Your task to perform on an android device: change the clock display to show seconds Image 0: 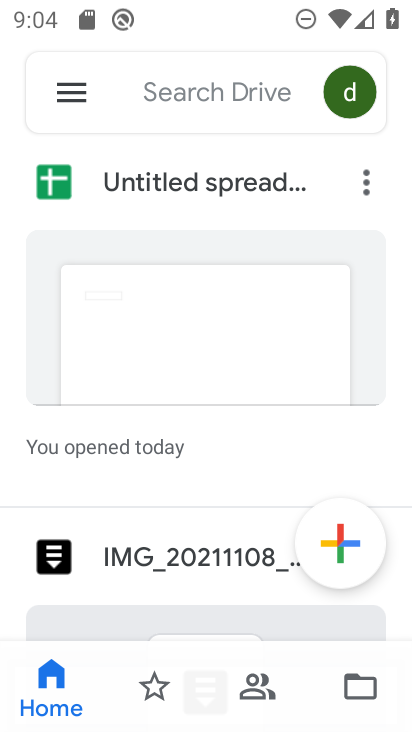
Step 0: press home button
Your task to perform on an android device: change the clock display to show seconds Image 1: 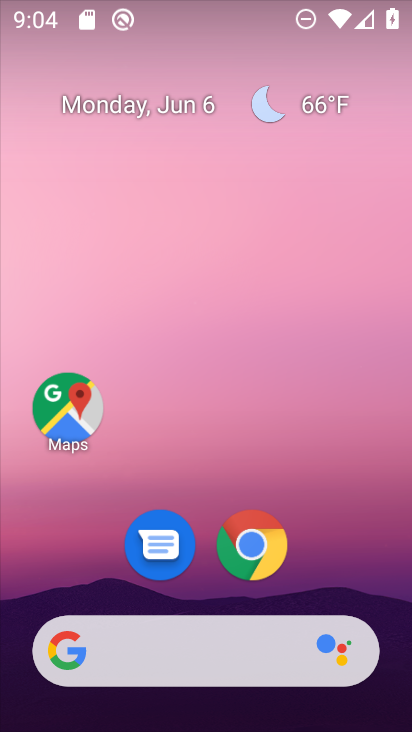
Step 1: drag from (209, 574) to (268, 137)
Your task to perform on an android device: change the clock display to show seconds Image 2: 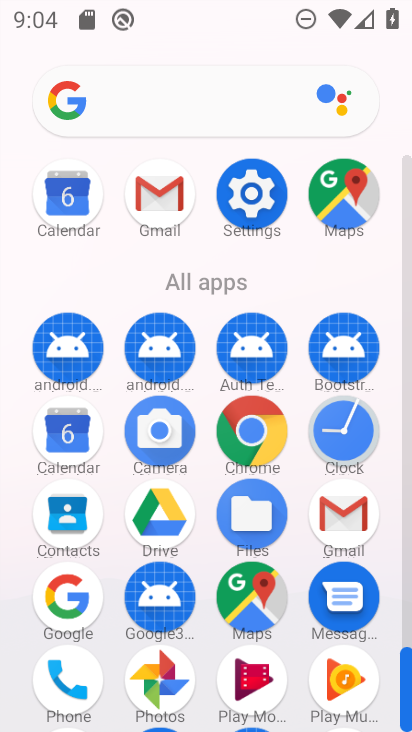
Step 2: click (343, 437)
Your task to perform on an android device: change the clock display to show seconds Image 3: 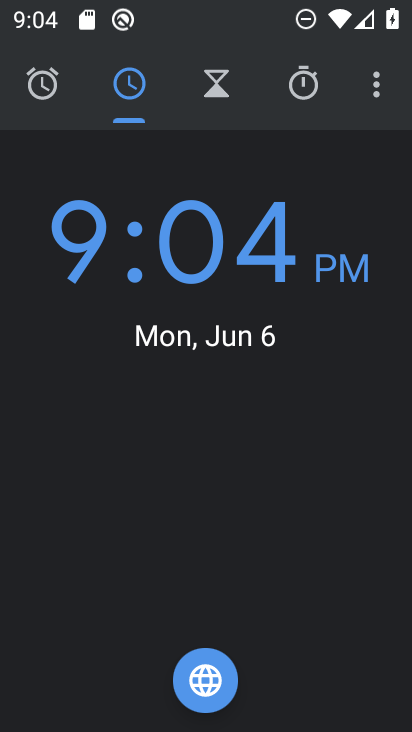
Step 3: click (376, 108)
Your task to perform on an android device: change the clock display to show seconds Image 4: 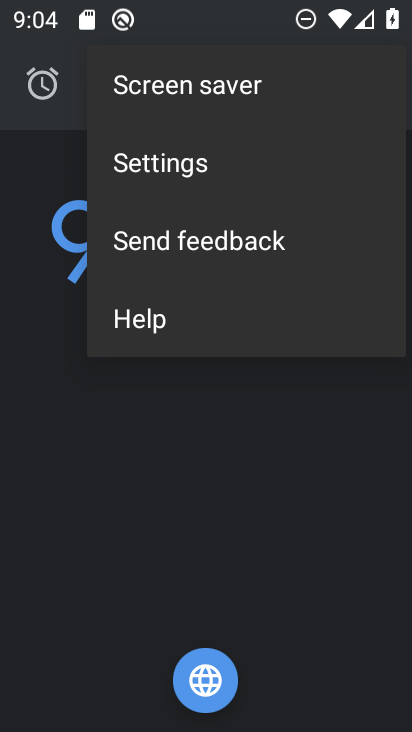
Step 4: click (180, 185)
Your task to perform on an android device: change the clock display to show seconds Image 5: 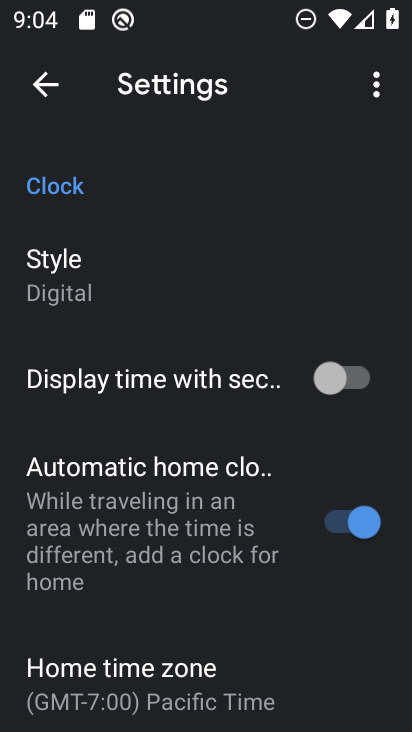
Step 5: click (91, 290)
Your task to perform on an android device: change the clock display to show seconds Image 6: 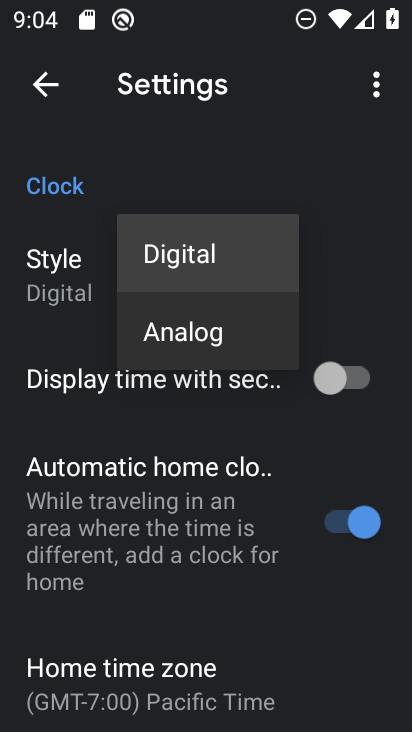
Step 6: click (145, 338)
Your task to perform on an android device: change the clock display to show seconds Image 7: 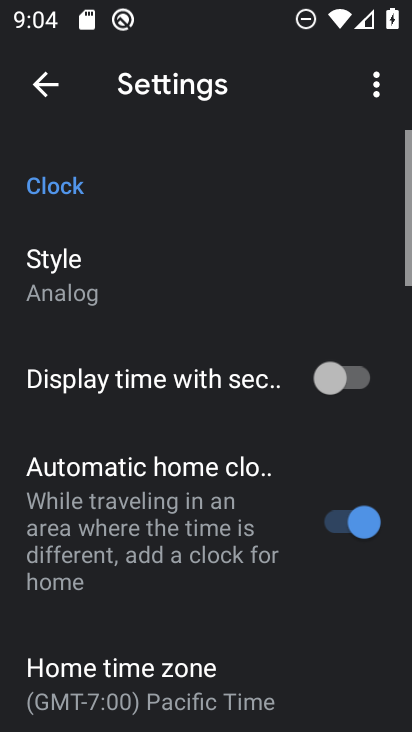
Step 7: click (366, 386)
Your task to perform on an android device: change the clock display to show seconds Image 8: 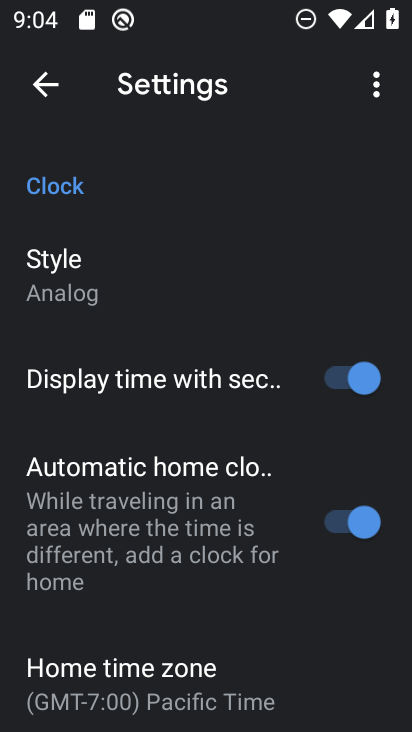
Step 8: task complete